Your task to perform on an android device: Add logitech g pro to the cart on newegg.com Image 0: 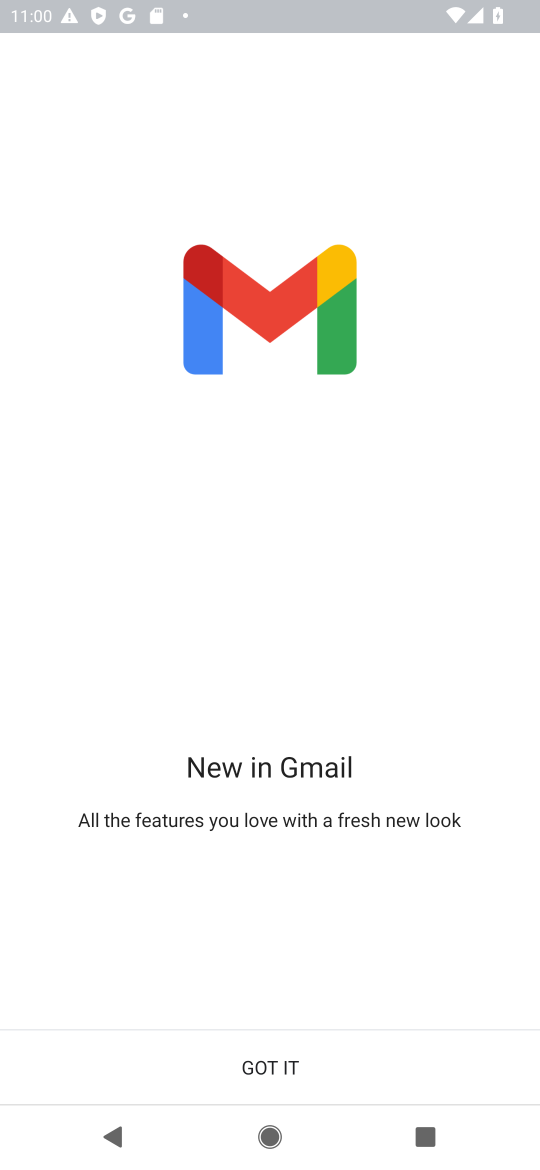
Step 0: press home button
Your task to perform on an android device: Add logitech g pro to the cart on newegg.com Image 1: 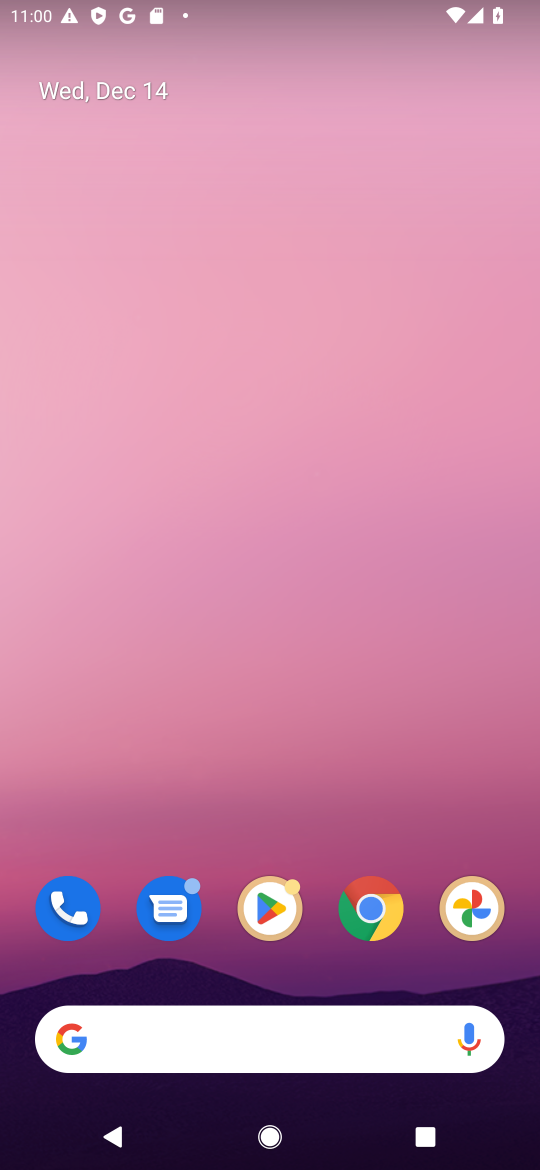
Step 1: click (364, 926)
Your task to perform on an android device: Add logitech g pro to the cart on newegg.com Image 2: 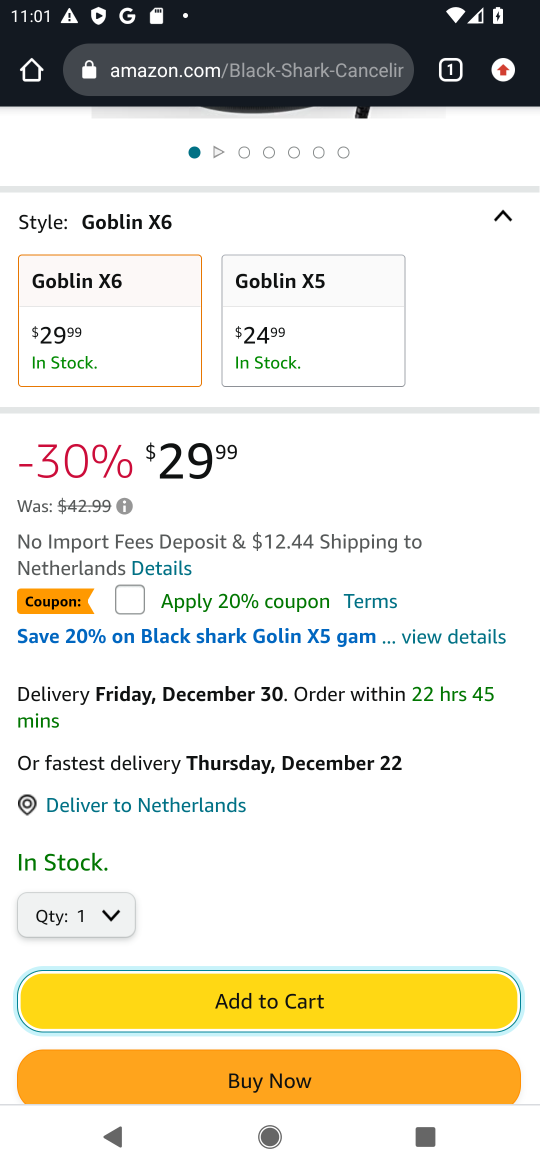
Step 2: click (151, 76)
Your task to perform on an android device: Add logitech g pro to the cart on newegg.com Image 3: 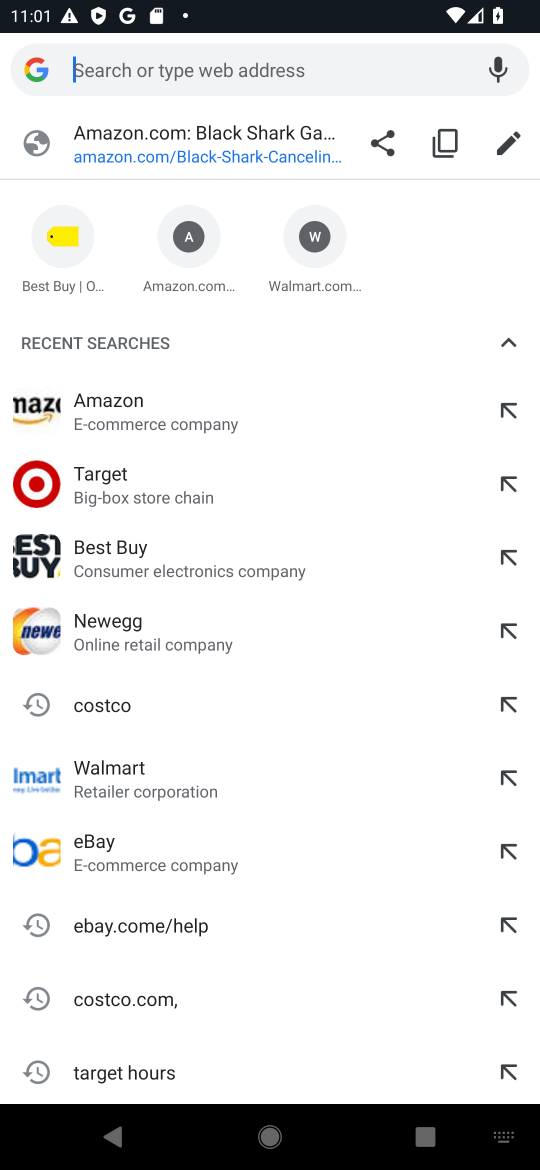
Step 3: click (216, 634)
Your task to perform on an android device: Add logitech g pro to the cart on newegg.com Image 4: 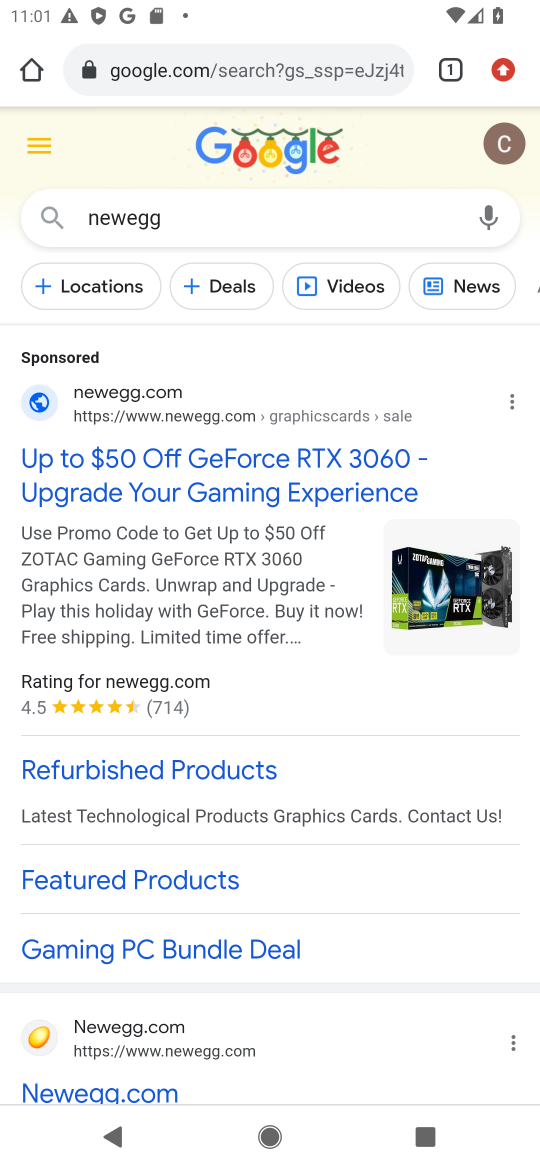
Step 4: click (173, 503)
Your task to perform on an android device: Add logitech g pro to the cart on newegg.com Image 5: 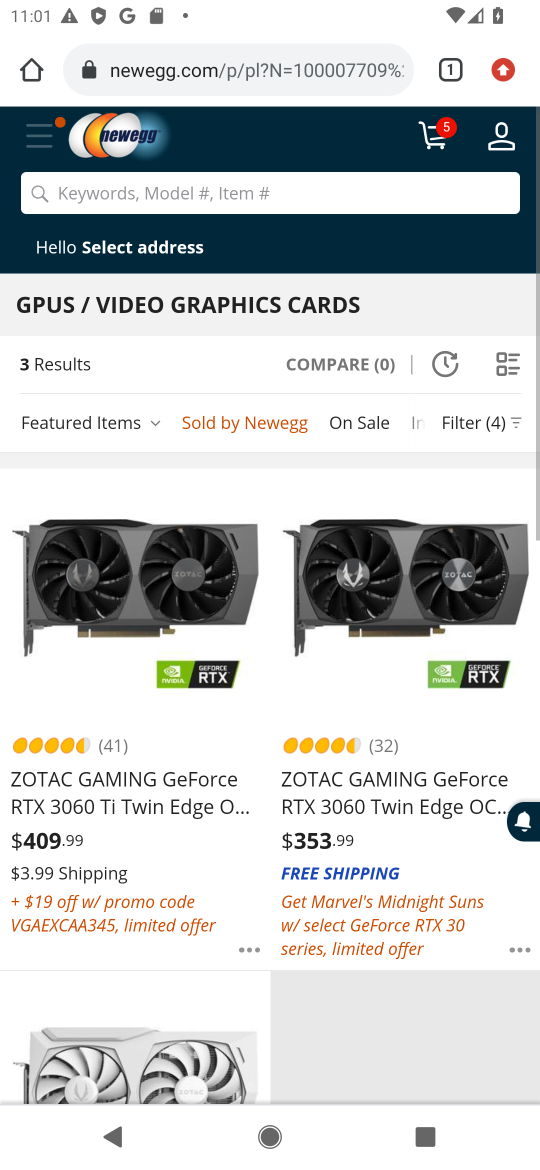
Step 5: click (124, 729)
Your task to perform on an android device: Add logitech g pro to the cart on newegg.com Image 6: 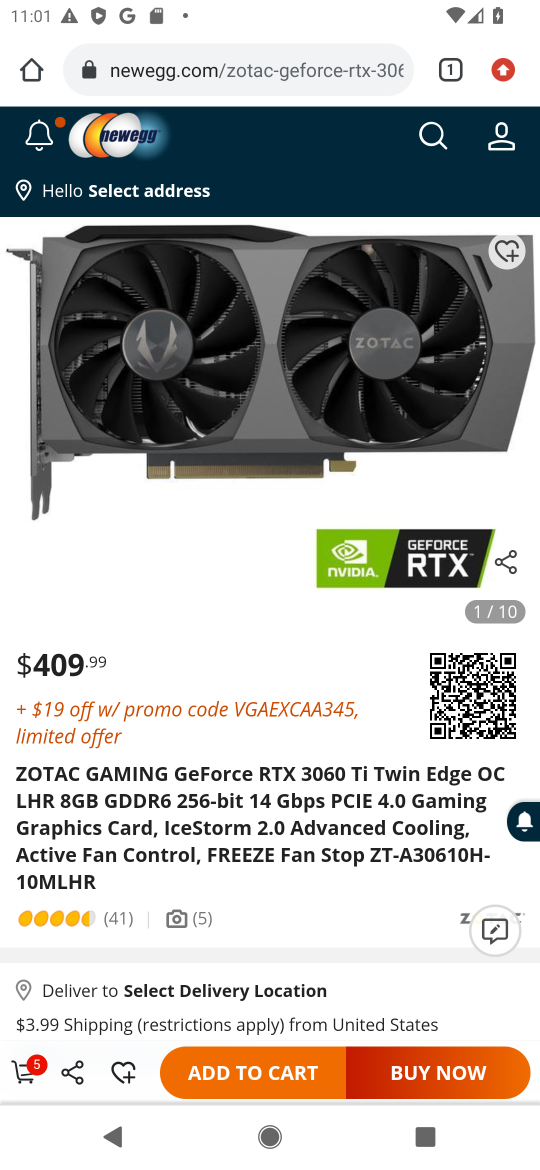
Step 6: task complete